Your task to perform on an android device: toggle show notifications on the lock screen Image 0: 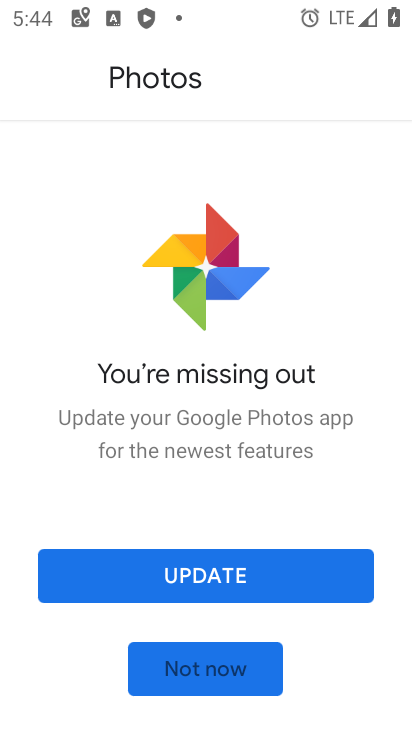
Step 0: press home button
Your task to perform on an android device: toggle show notifications on the lock screen Image 1: 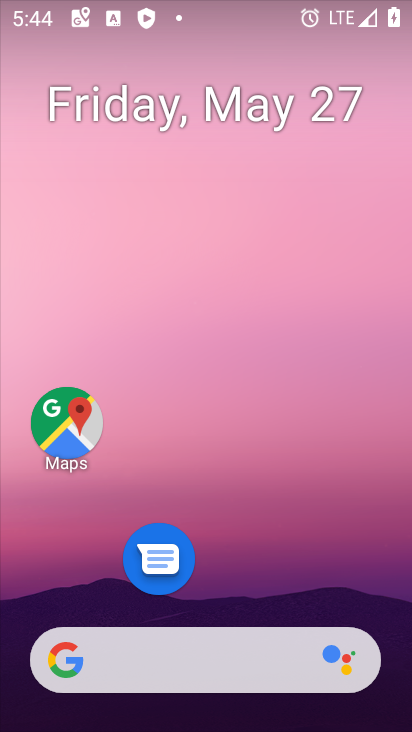
Step 1: drag from (308, 675) to (315, 78)
Your task to perform on an android device: toggle show notifications on the lock screen Image 2: 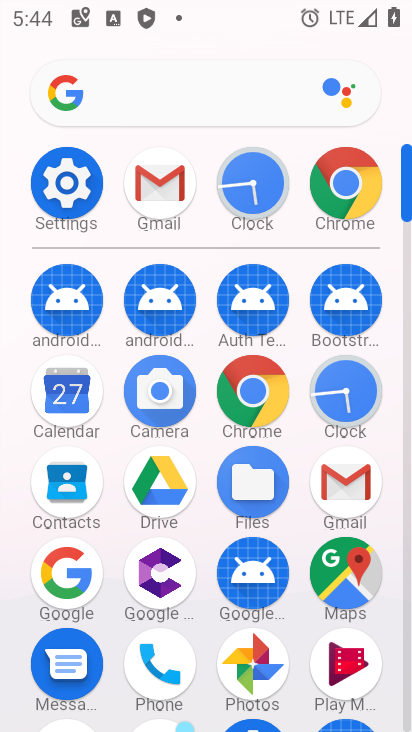
Step 2: click (69, 189)
Your task to perform on an android device: toggle show notifications on the lock screen Image 3: 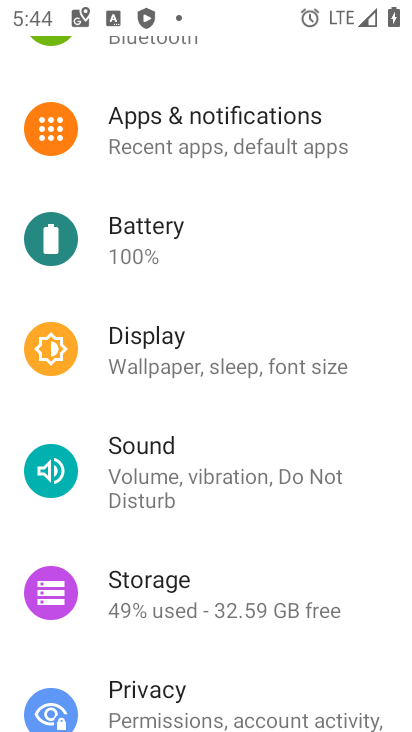
Step 3: click (204, 138)
Your task to perform on an android device: toggle show notifications on the lock screen Image 4: 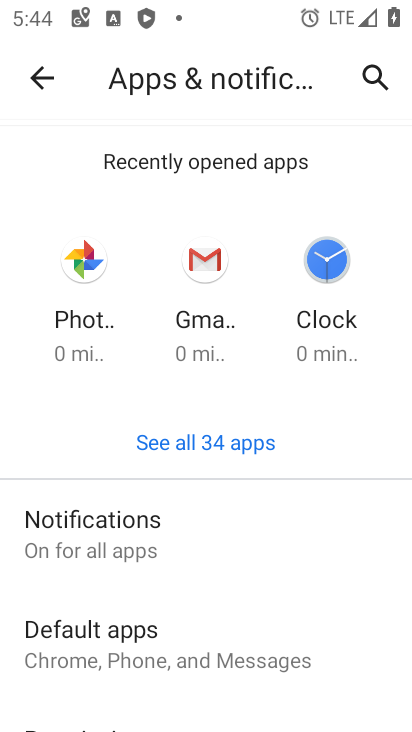
Step 4: click (140, 547)
Your task to perform on an android device: toggle show notifications on the lock screen Image 5: 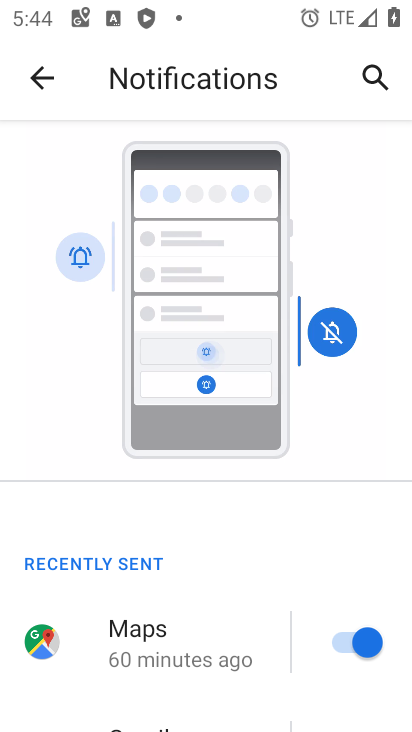
Step 5: drag from (199, 667) to (264, 66)
Your task to perform on an android device: toggle show notifications on the lock screen Image 6: 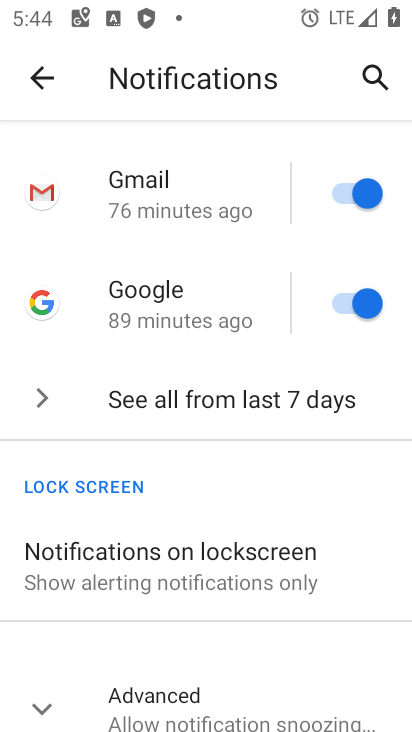
Step 6: click (211, 565)
Your task to perform on an android device: toggle show notifications on the lock screen Image 7: 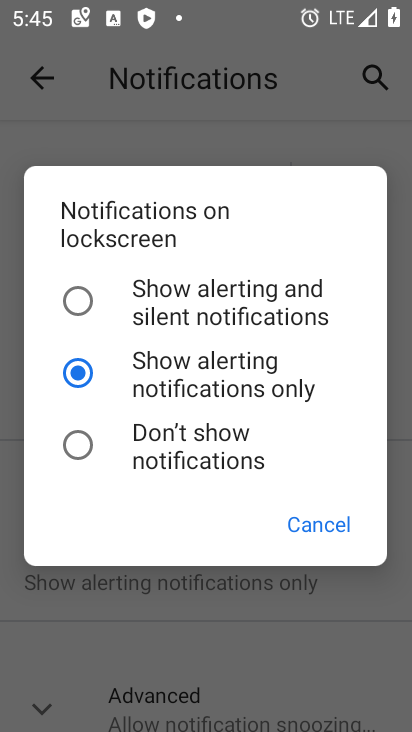
Step 7: click (78, 299)
Your task to perform on an android device: toggle show notifications on the lock screen Image 8: 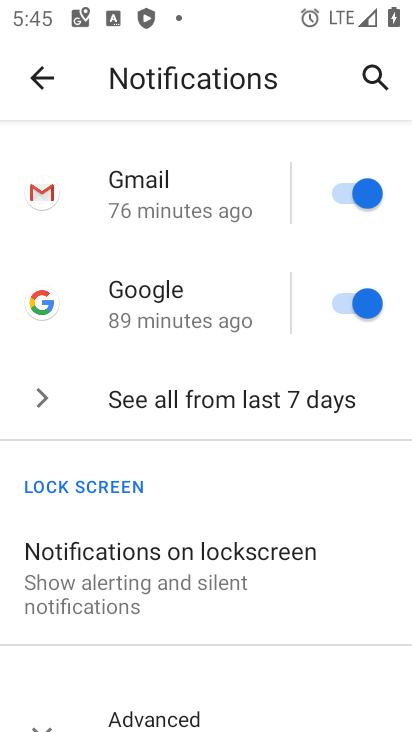
Step 8: task complete